Your task to perform on an android device: turn on sleep mode Image 0: 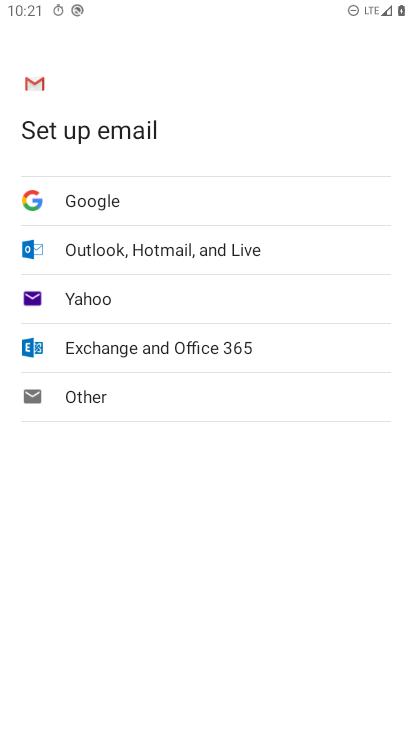
Step 0: press home button
Your task to perform on an android device: turn on sleep mode Image 1: 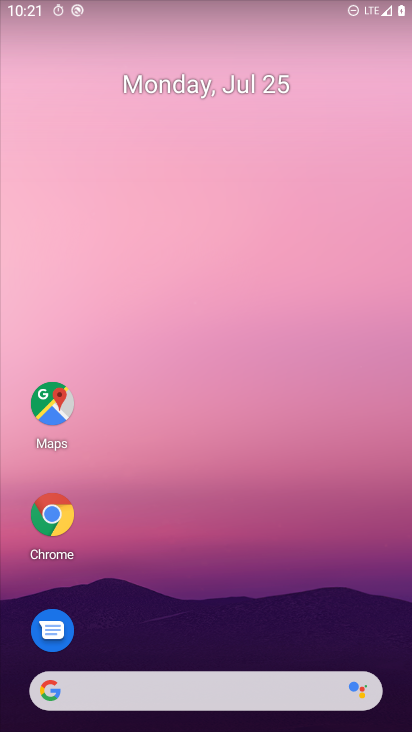
Step 1: click (144, 252)
Your task to perform on an android device: turn on sleep mode Image 2: 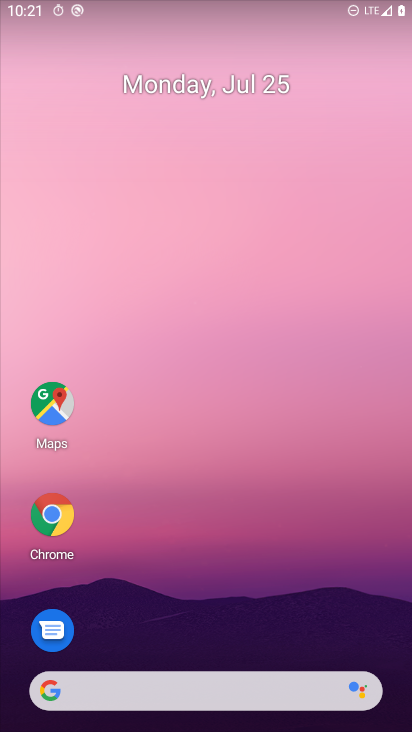
Step 2: click (240, 53)
Your task to perform on an android device: turn on sleep mode Image 3: 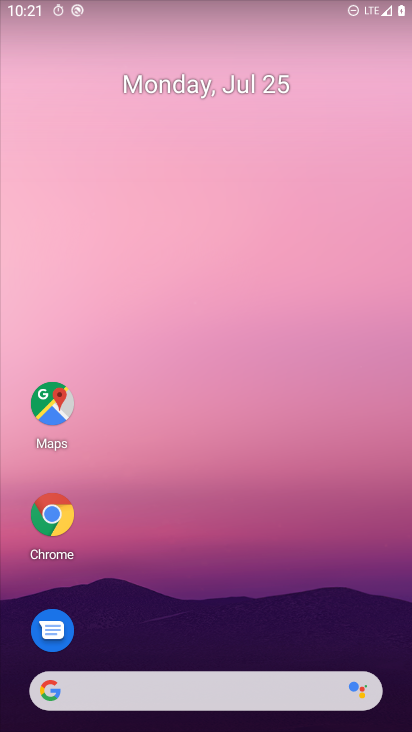
Step 3: task complete